Your task to perform on an android device: open wifi settings Image 0: 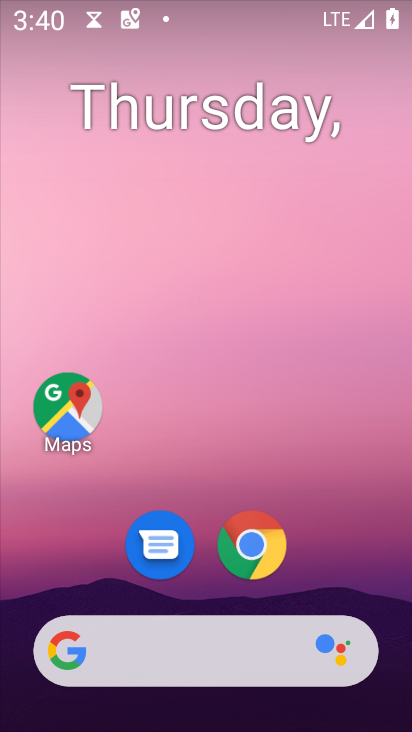
Step 0: drag from (358, 464) to (309, 10)
Your task to perform on an android device: open wifi settings Image 1: 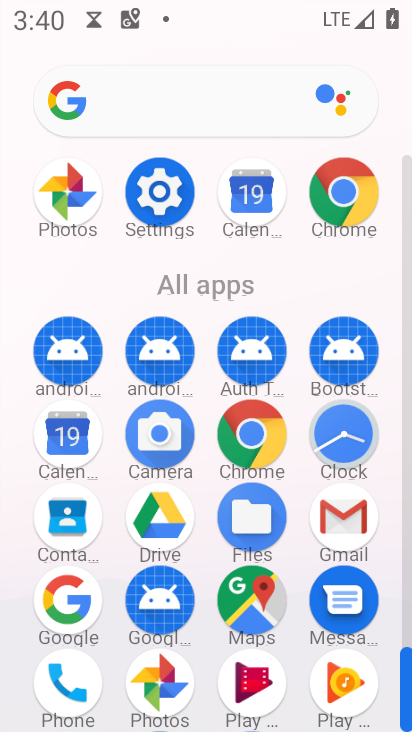
Step 1: click (184, 202)
Your task to perform on an android device: open wifi settings Image 2: 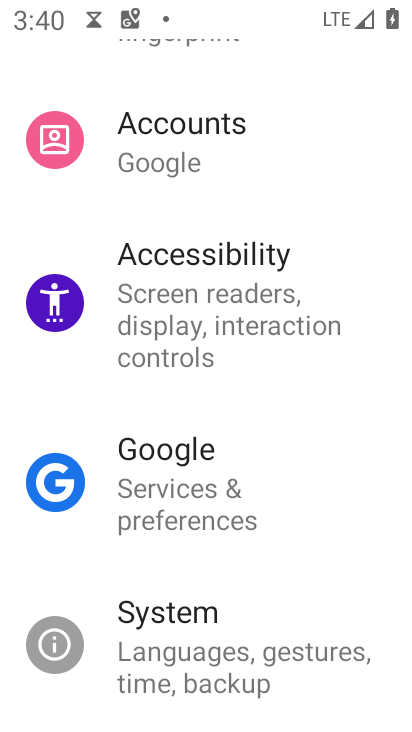
Step 2: drag from (138, 161) to (250, 645)
Your task to perform on an android device: open wifi settings Image 3: 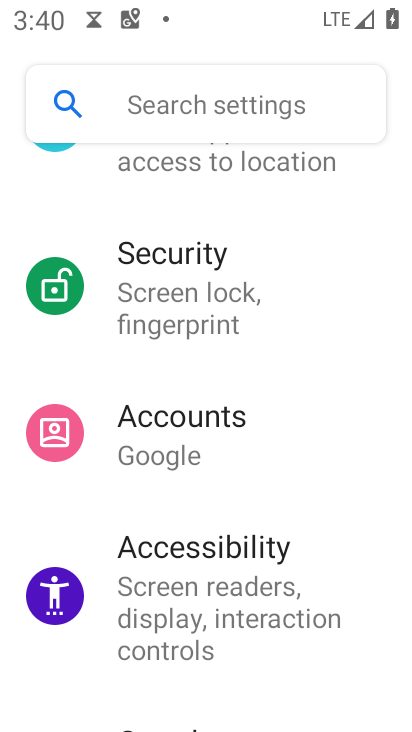
Step 3: drag from (321, 215) to (304, 623)
Your task to perform on an android device: open wifi settings Image 4: 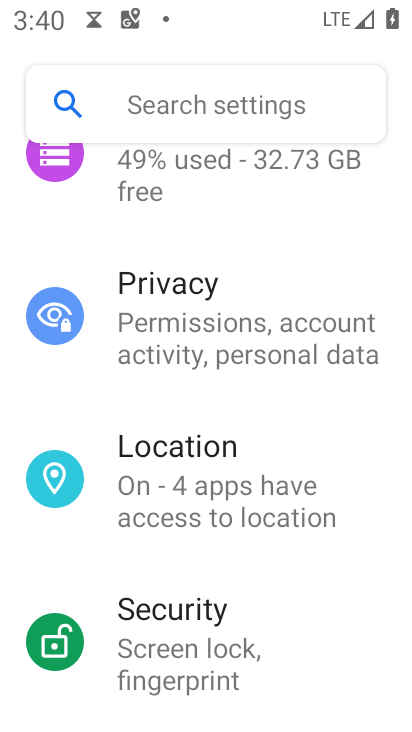
Step 4: drag from (265, 170) to (234, 626)
Your task to perform on an android device: open wifi settings Image 5: 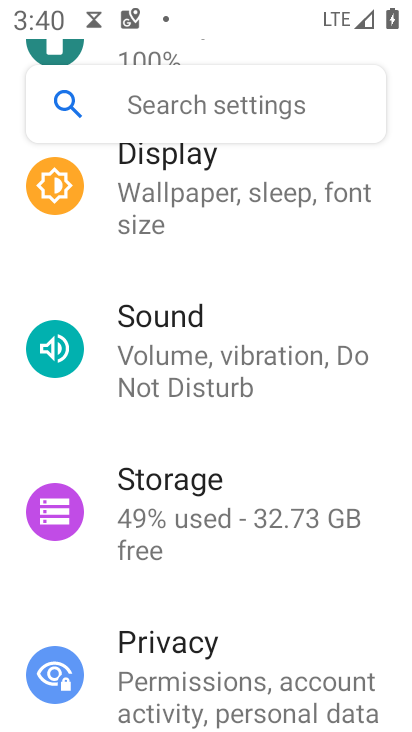
Step 5: drag from (245, 175) to (248, 617)
Your task to perform on an android device: open wifi settings Image 6: 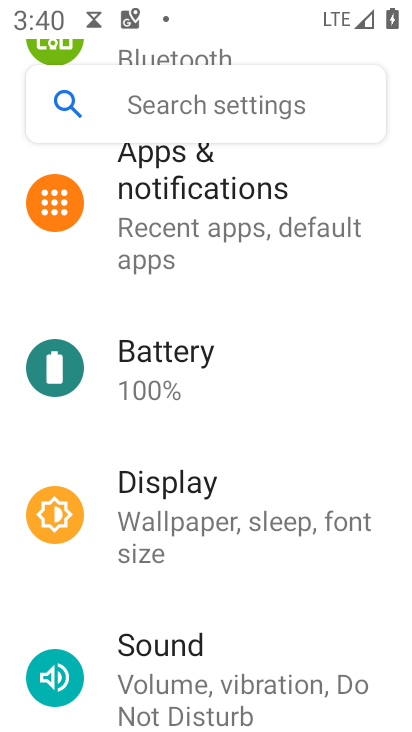
Step 6: drag from (285, 191) to (269, 639)
Your task to perform on an android device: open wifi settings Image 7: 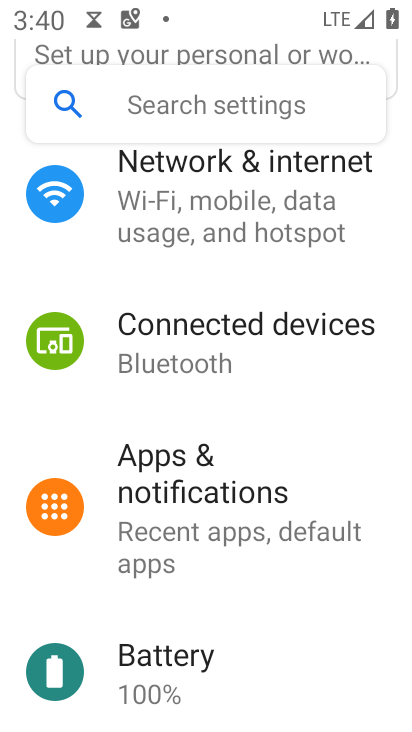
Step 7: drag from (246, 178) to (243, 605)
Your task to perform on an android device: open wifi settings Image 8: 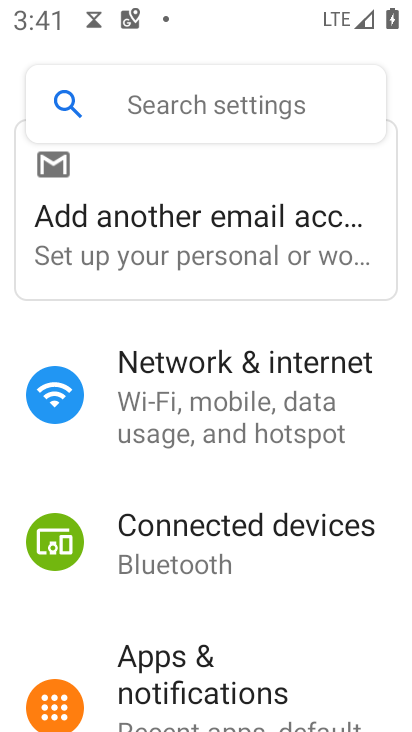
Step 8: click (202, 402)
Your task to perform on an android device: open wifi settings Image 9: 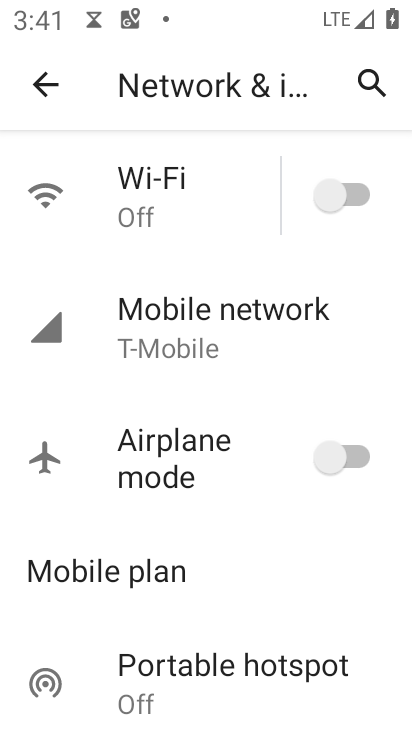
Step 9: click (179, 183)
Your task to perform on an android device: open wifi settings Image 10: 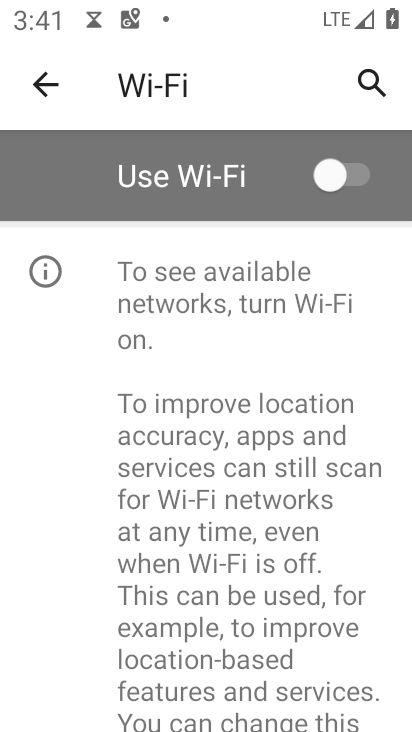
Step 10: task complete